Your task to perform on an android device: When is my next meeting? Image 0: 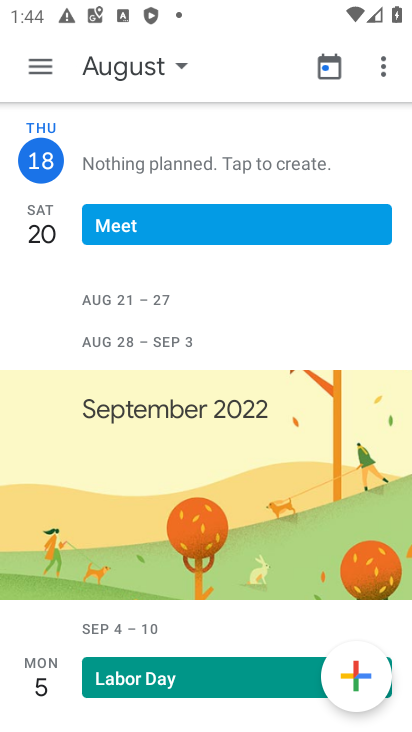
Step 0: press home button
Your task to perform on an android device: When is my next meeting? Image 1: 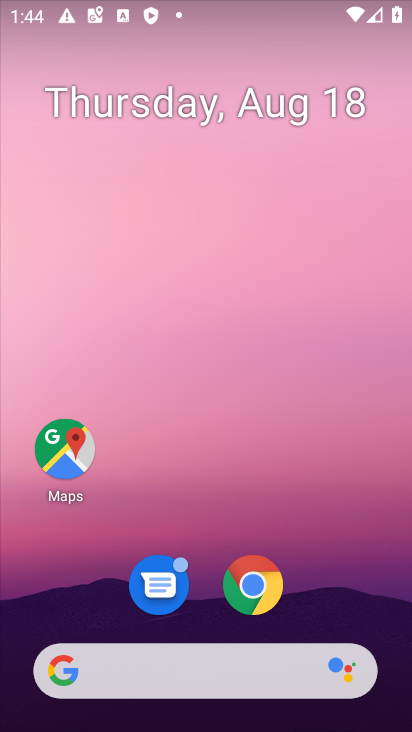
Step 1: drag from (213, 527) to (240, 2)
Your task to perform on an android device: When is my next meeting? Image 2: 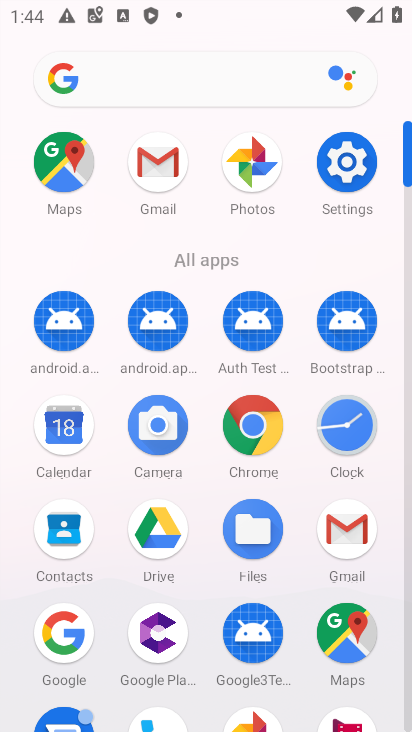
Step 2: click (64, 419)
Your task to perform on an android device: When is my next meeting? Image 3: 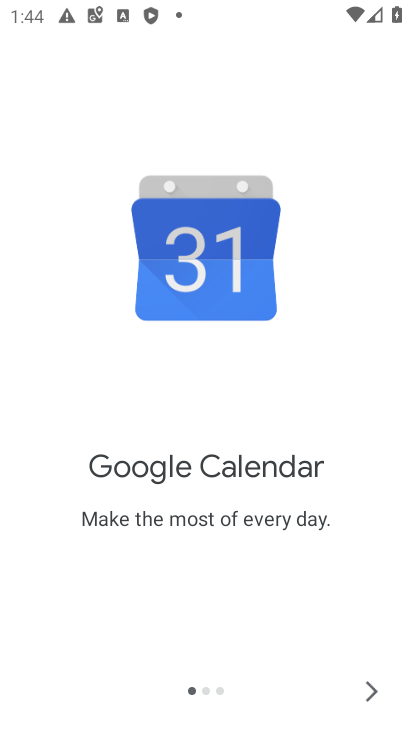
Step 3: click (367, 689)
Your task to perform on an android device: When is my next meeting? Image 4: 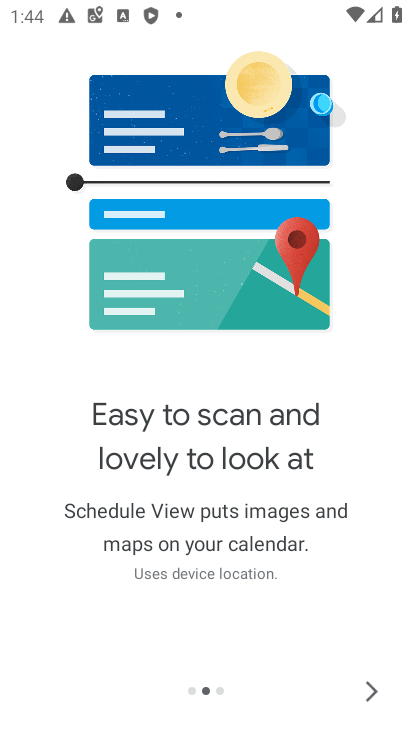
Step 4: click (367, 689)
Your task to perform on an android device: When is my next meeting? Image 5: 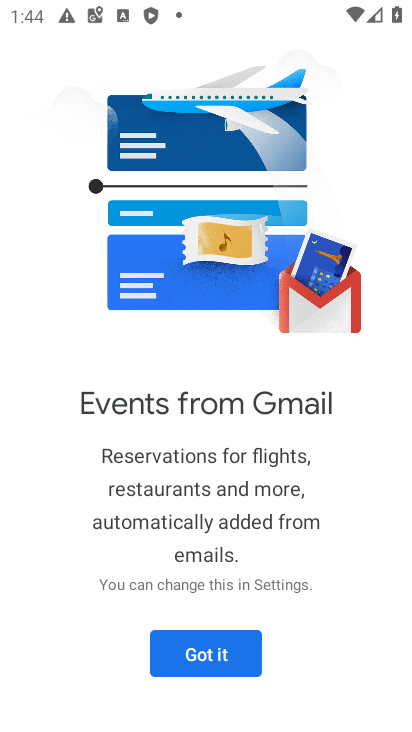
Step 5: click (239, 658)
Your task to perform on an android device: When is my next meeting? Image 6: 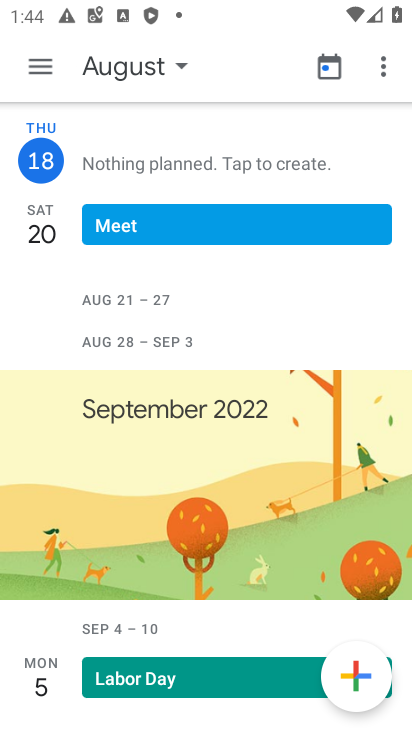
Step 6: task complete